Your task to perform on an android device: turn off location Image 0: 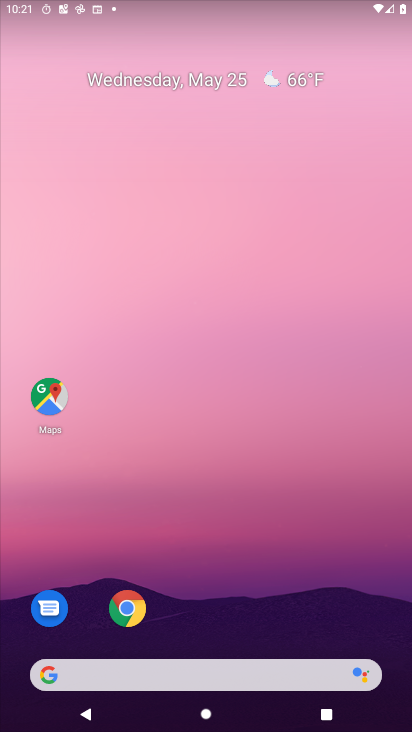
Step 0: drag from (225, 723) to (226, 107)
Your task to perform on an android device: turn off location Image 1: 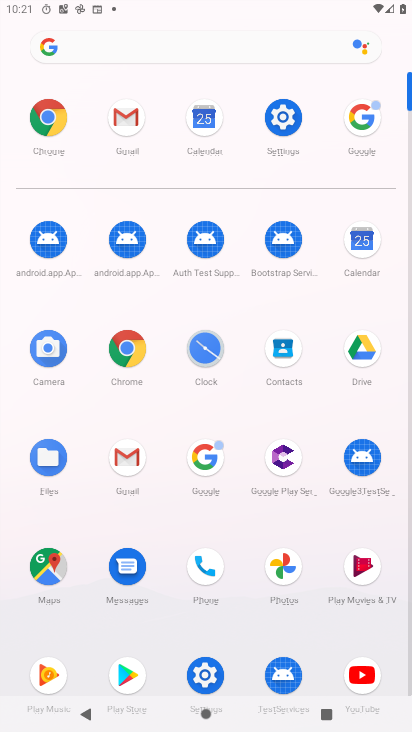
Step 1: click (280, 114)
Your task to perform on an android device: turn off location Image 2: 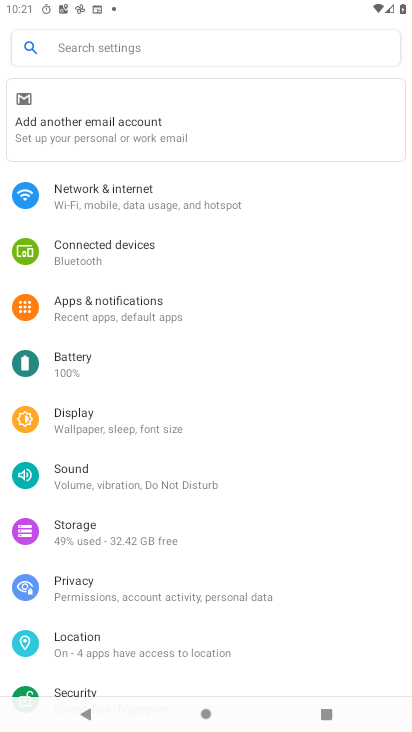
Step 2: click (89, 639)
Your task to perform on an android device: turn off location Image 3: 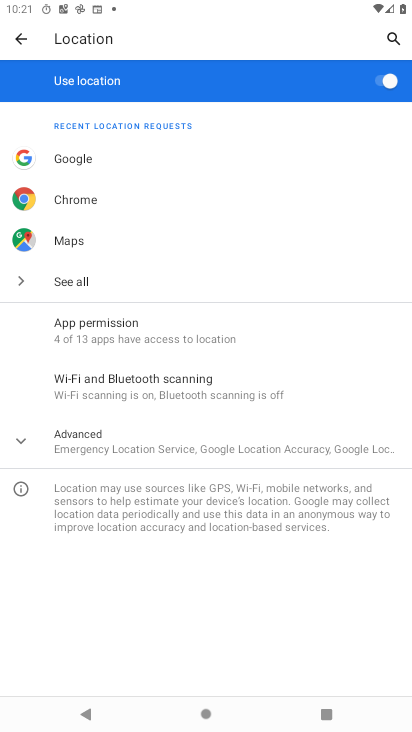
Step 3: click (382, 88)
Your task to perform on an android device: turn off location Image 4: 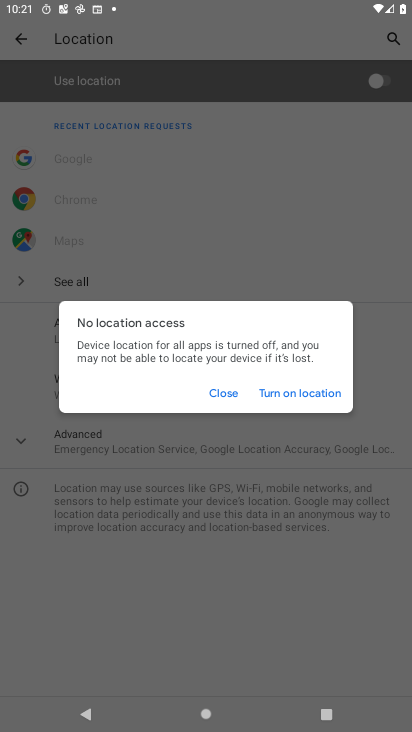
Step 4: click (222, 388)
Your task to perform on an android device: turn off location Image 5: 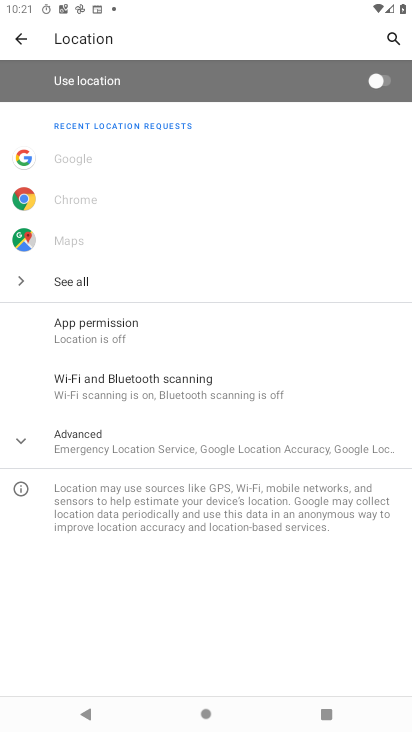
Step 5: task complete